Your task to perform on an android device: Open network settings Image 0: 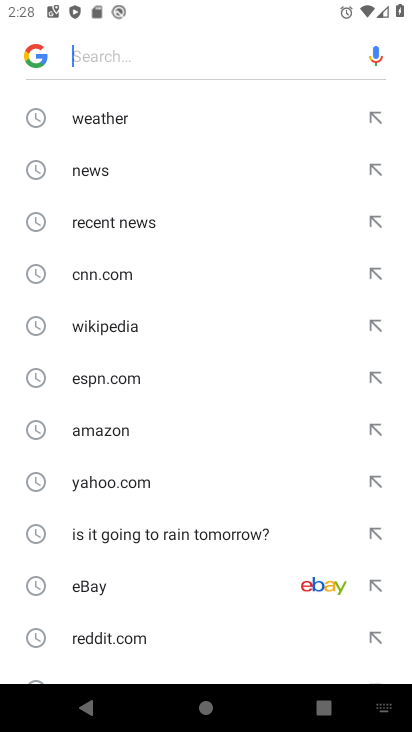
Step 0: press home button
Your task to perform on an android device: Open network settings Image 1: 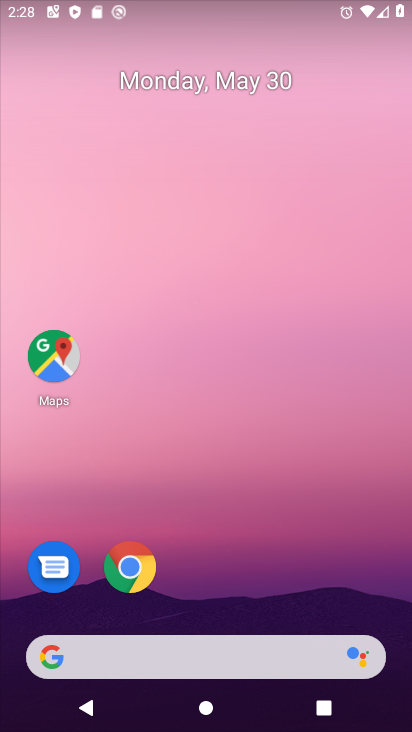
Step 1: drag from (237, 503) to (287, 205)
Your task to perform on an android device: Open network settings Image 2: 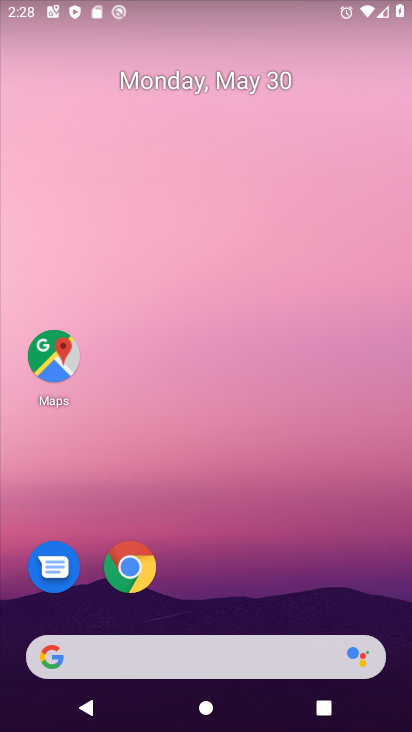
Step 2: drag from (215, 579) to (257, 121)
Your task to perform on an android device: Open network settings Image 3: 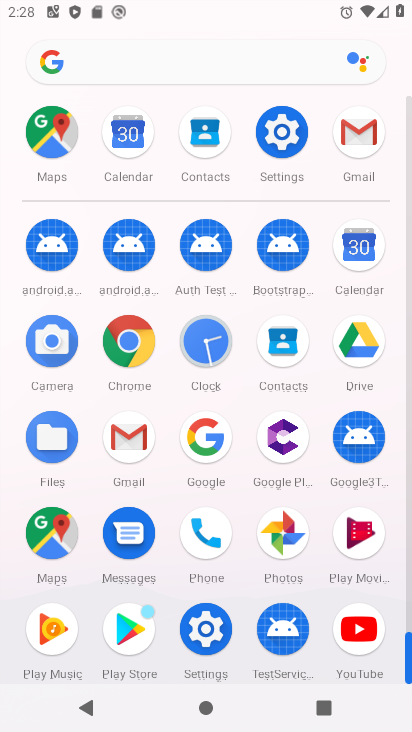
Step 3: click (284, 144)
Your task to perform on an android device: Open network settings Image 4: 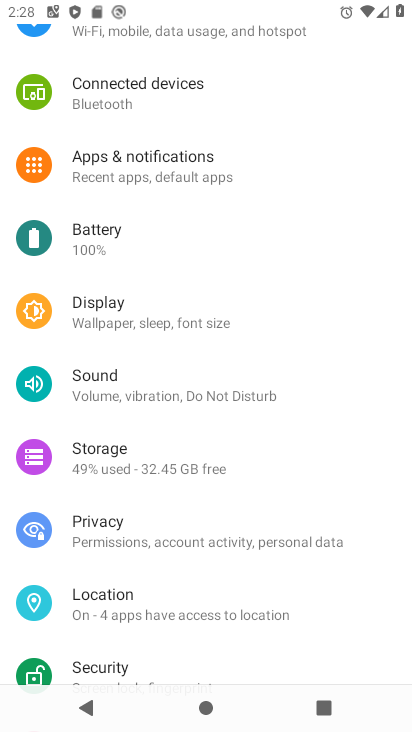
Step 4: drag from (213, 195) to (210, 640)
Your task to perform on an android device: Open network settings Image 5: 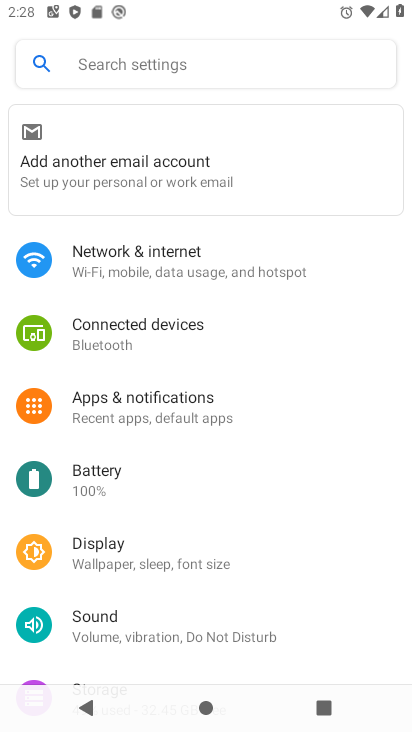
Step 5: click (147, 269)
Your task to perform on an android device: Open network settings Image 6: 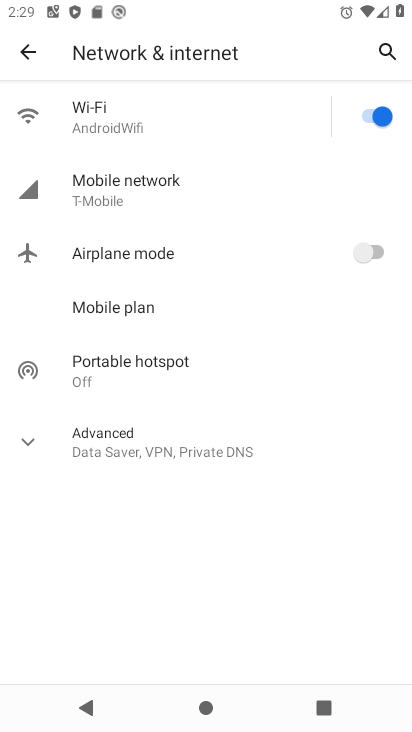
Step 6: click (120, 203)
Your task to perform on an android device: Open network settings Image 7: 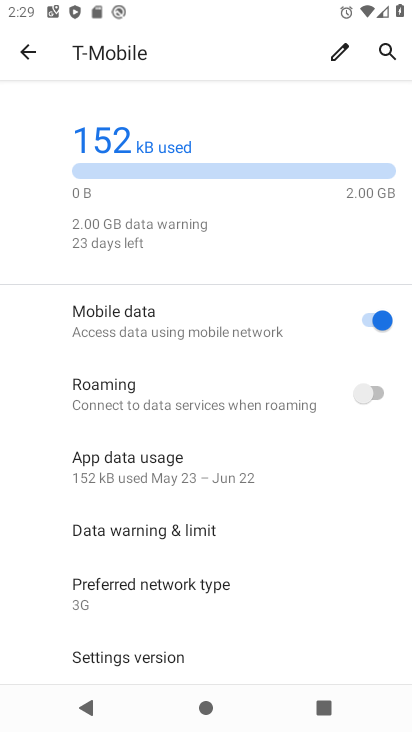
Step 7: task complete